Your task to perform on an android device: Go to sound settings Image 0: 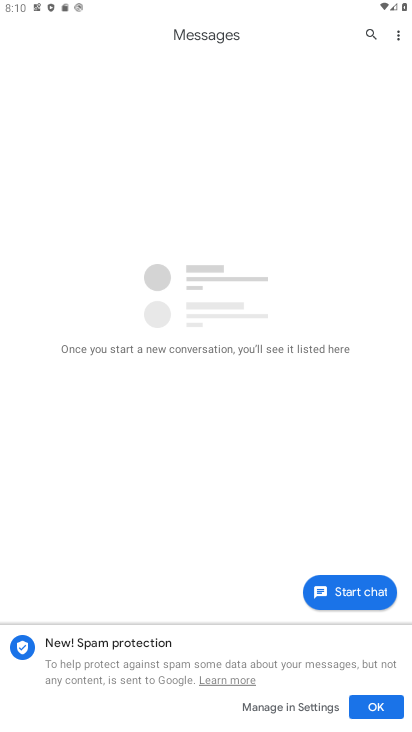
Step 0: press home button
Your task to perform on an android device: Go to sound settings Image 1: 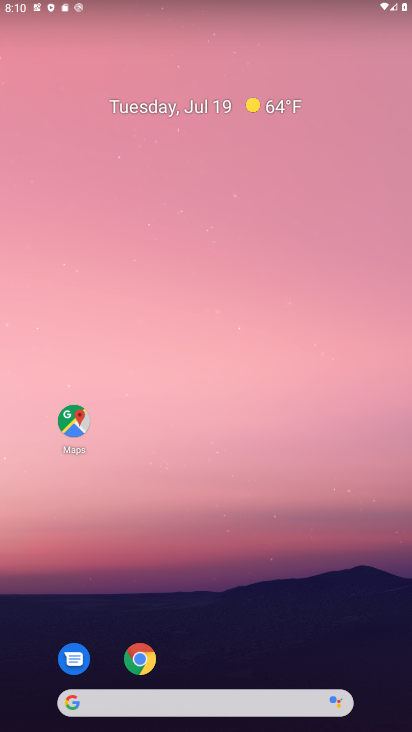
Step 1: drag from (196, 683) to (249, 225)
Your task to perform on an android device: Go to sound settings Image 2: 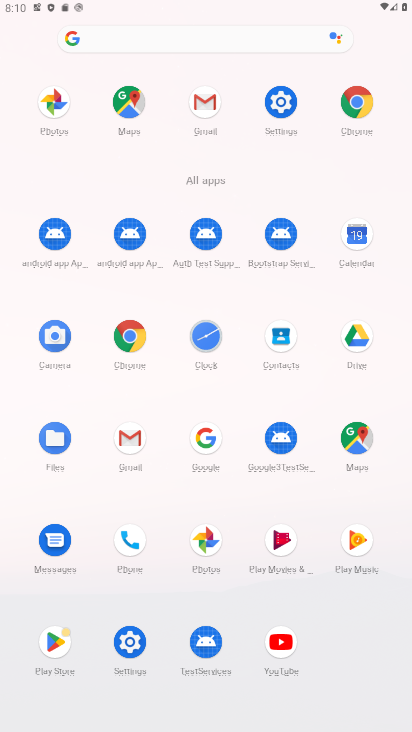
Step 2: click (271, 97)
Your task to perform on an android device: Go to sound settings Image 3: 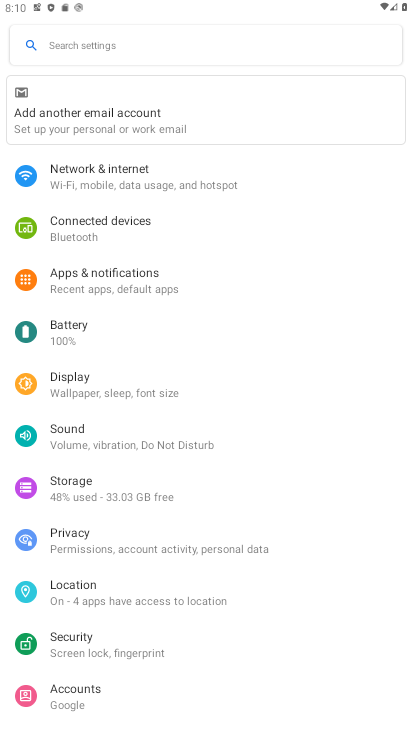
Step 3: click (135, 437)
Your task to perform on an android device: Go to sound settings Image 4: 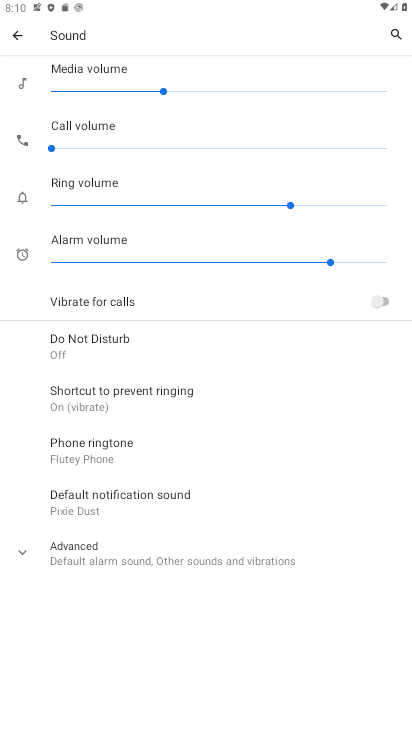
Step 4: task complete